Your task to perform on an android device: Clear the cart on bestbuy. Image 0: 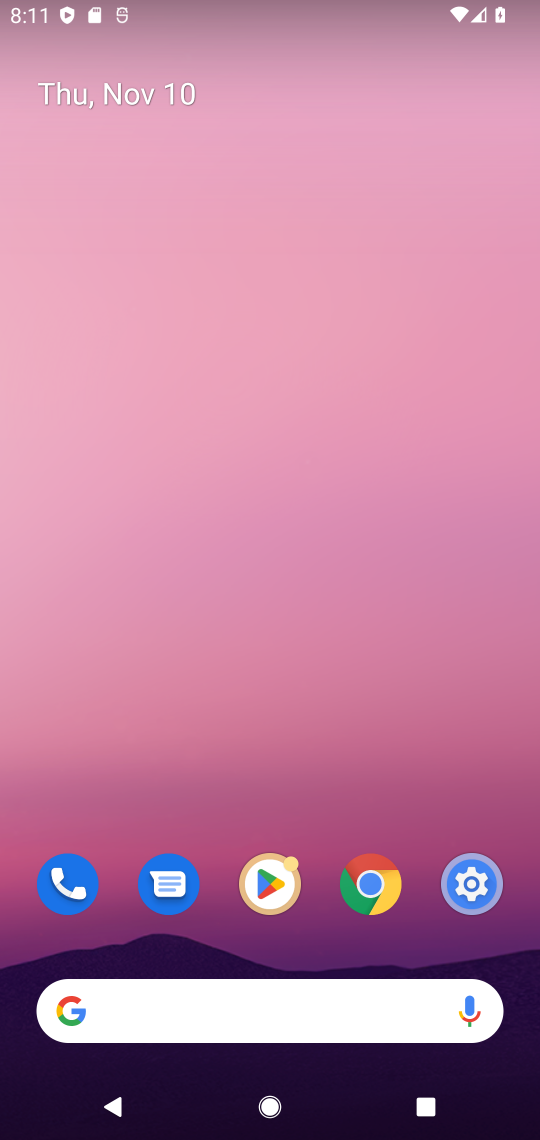
Step 0: click (246, 1002)
Your task to perform on an android device: Clear the cart on bestbuy. Image 1: 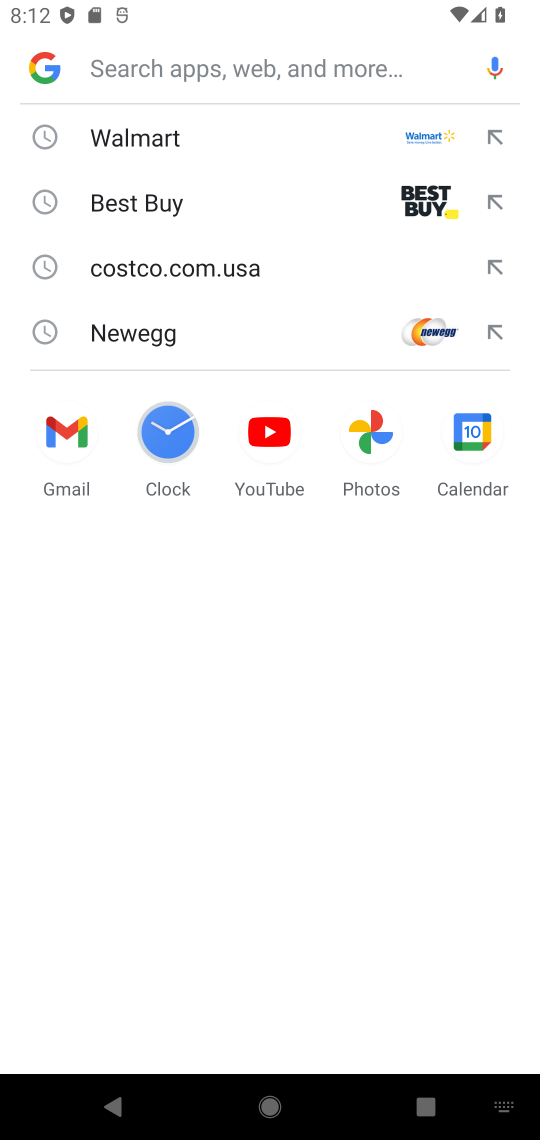
Step 1: click (289, 203)
Your task to perform on an android device: Clear the cart on bestbuy. Image 2: 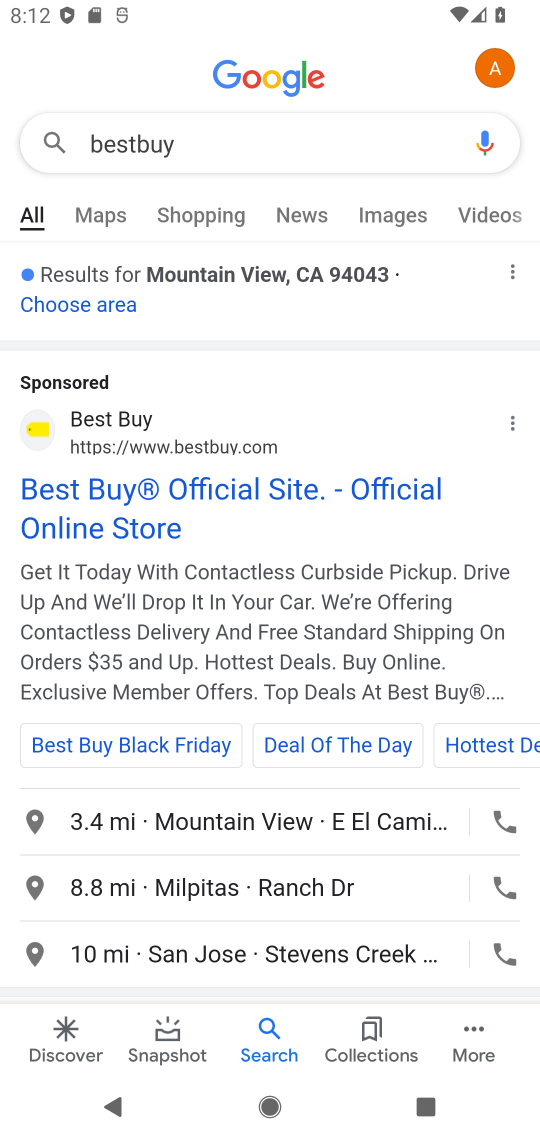
Step 2: click (76, 415)
Your task to perform on an android device: Clear the cart on bestbuy. Image 3: 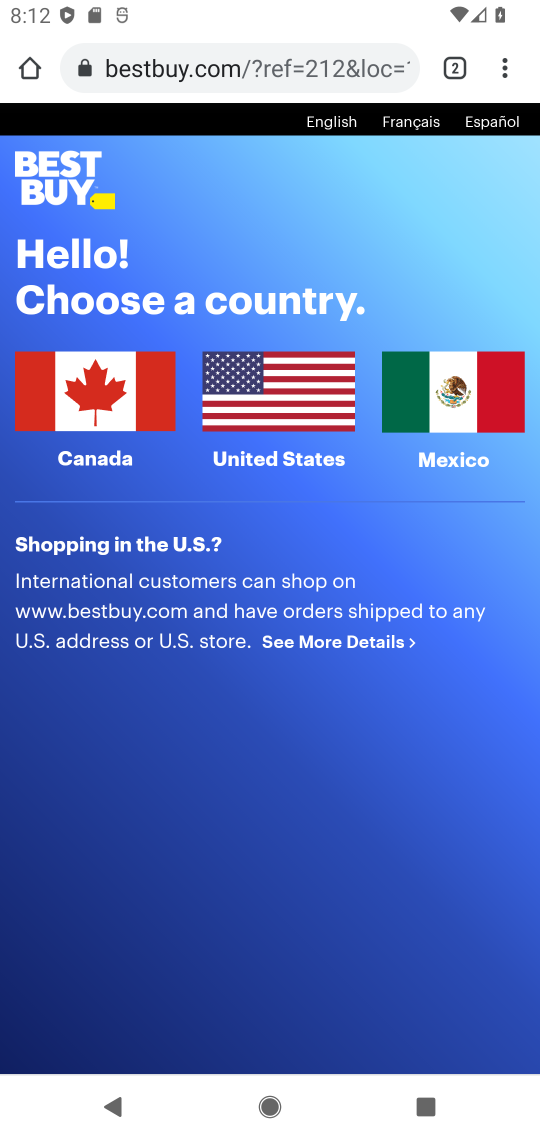
Step 3: click (302, 386)
Your task to perform on an android device: Clear the cart on bestbuy. Image 4: 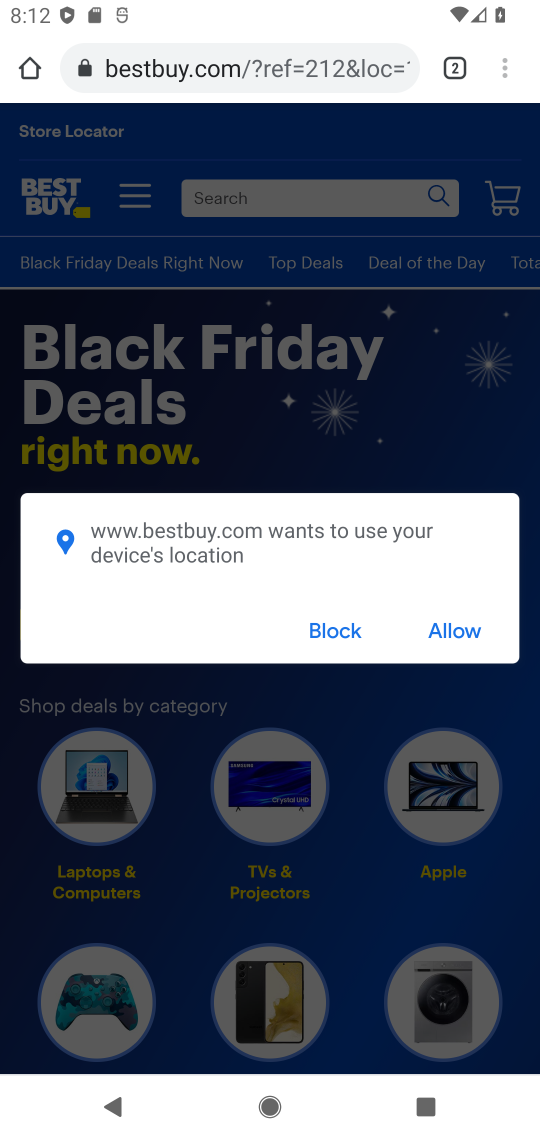
Step 4: click (309, 633)
Your task to perform on an android device: Clear the cart on bestbuy. Image 5: 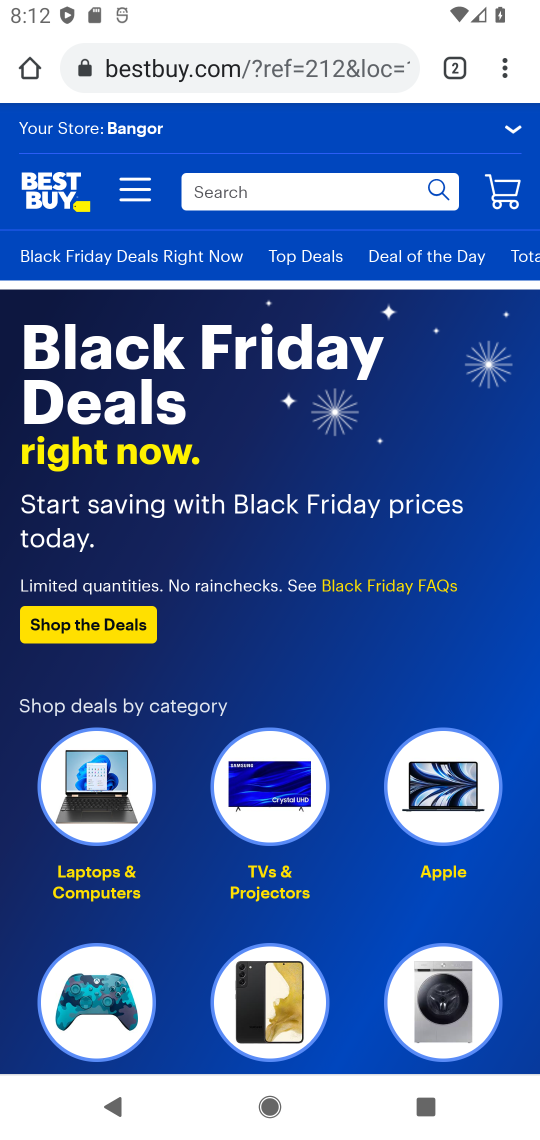
Step 5: click (265, 193)
Your task to perform on an android device: Clear the cart on bestbuy. Image 6: 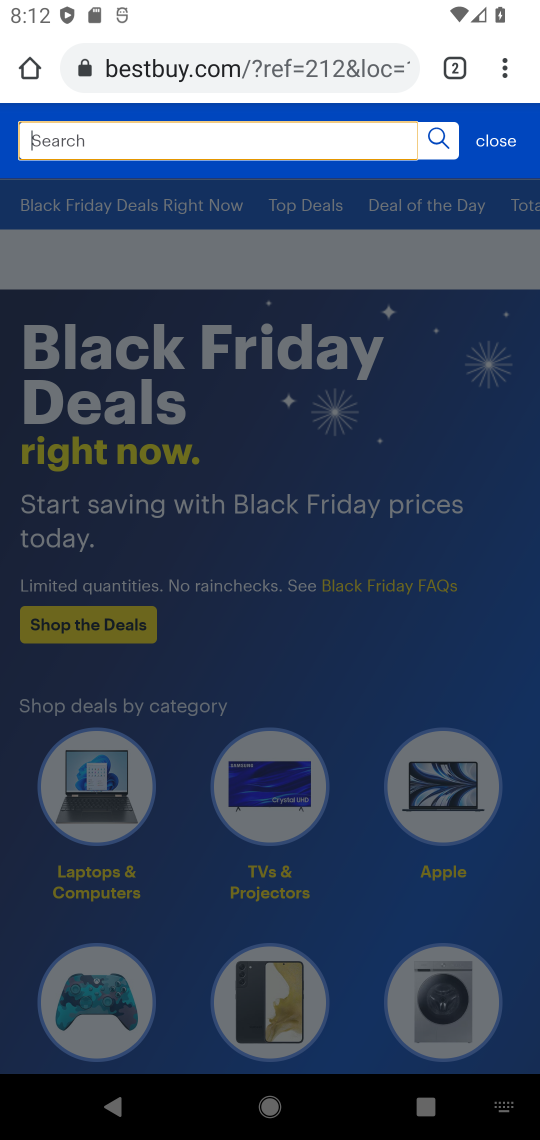
Step 6: click (485, 149)
Your task to perform on an android device: Clear the cart on bestbuy. Image 7: 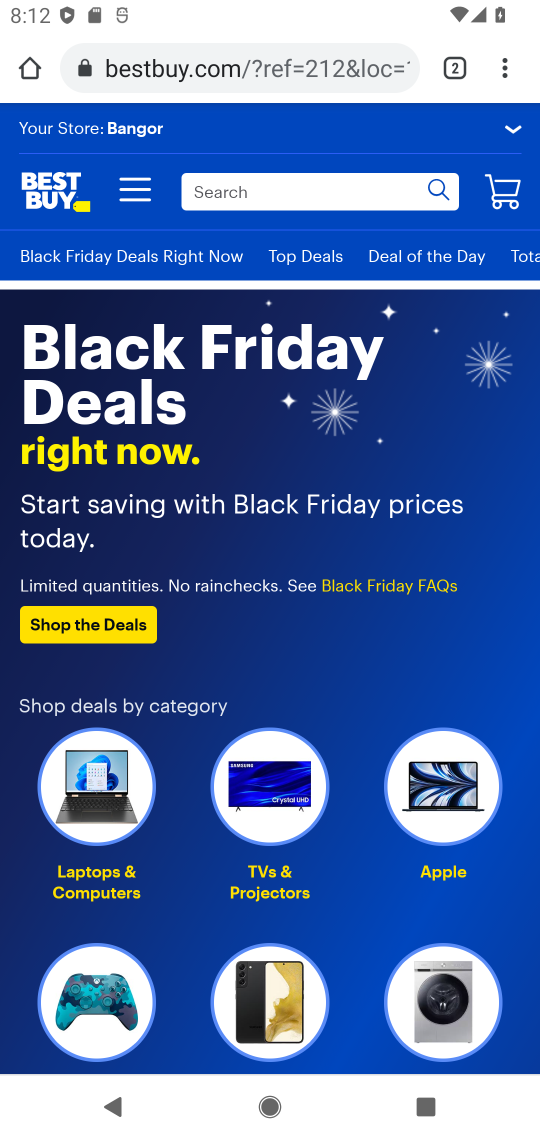
Step 7: click (502, 184)
Your task to perform on an android device: Clear the cart on bestbuy. Image 8: 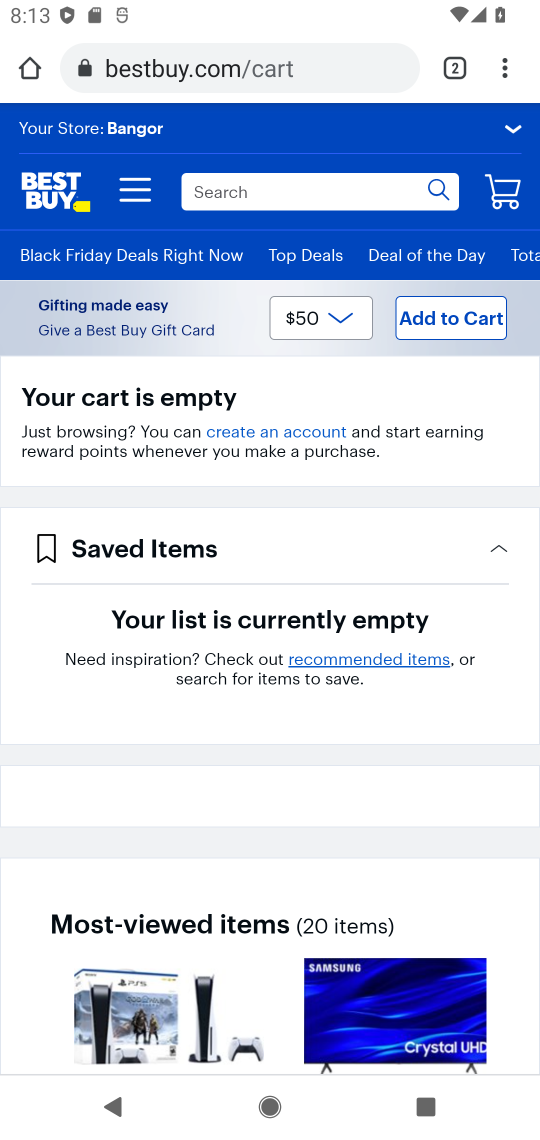
Step 8: task complete